Your task to perform on an android device: open app "YouTube Kids" (install if not already installed) Image 0: 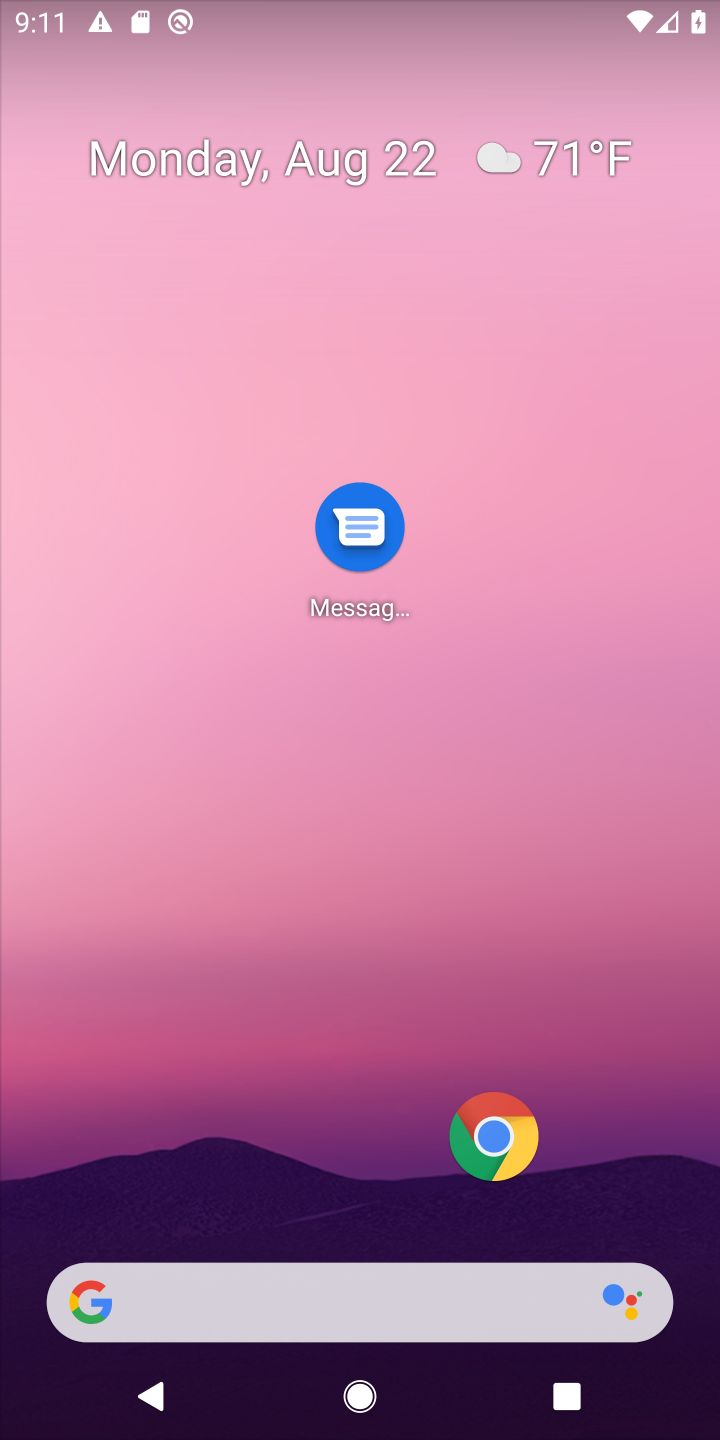
Step 0: drag from (229, 1177) to (238, 296)
Your task to perform on an android device: open app "YouTube Kids" (install if not already installed) Image 1: 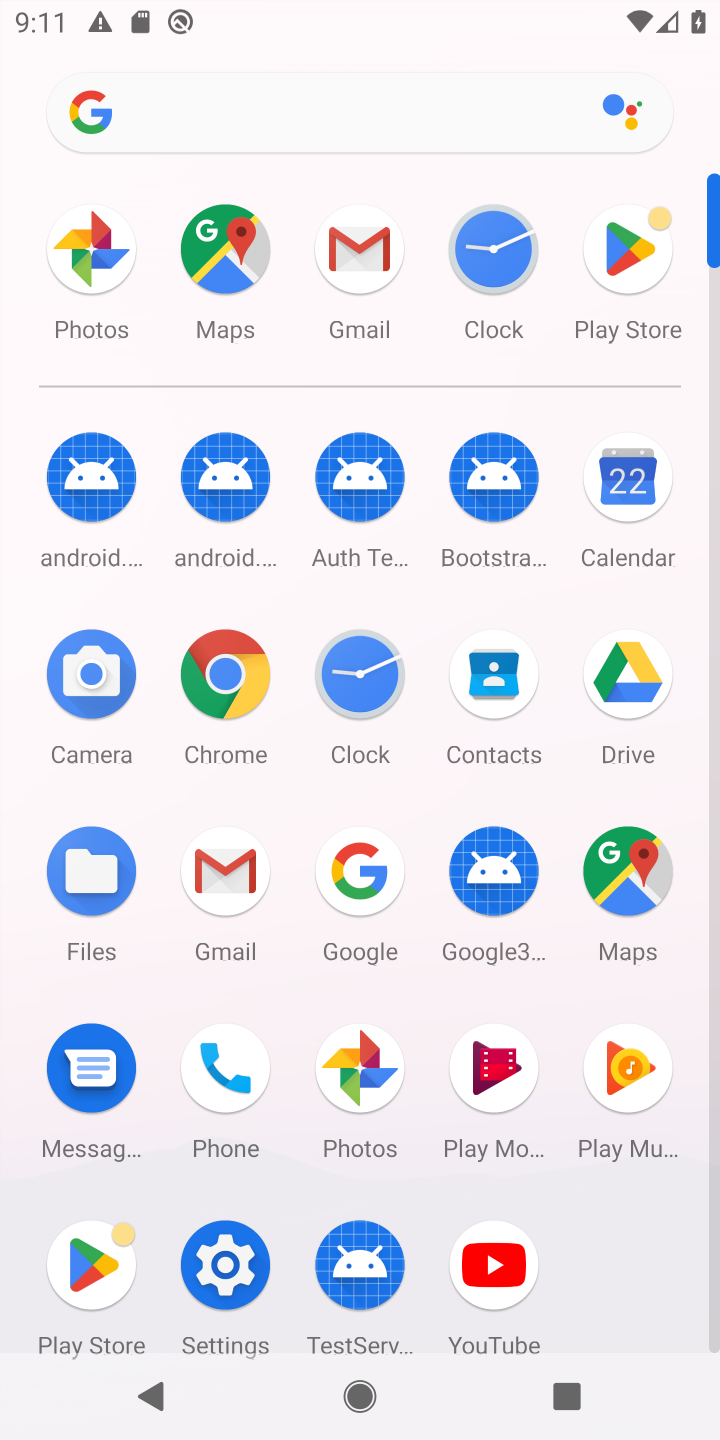
Step 1: click (625, 231)
Your task to perform on an android device: open app "YouTube Kids" (install if not already installed) Image 2: 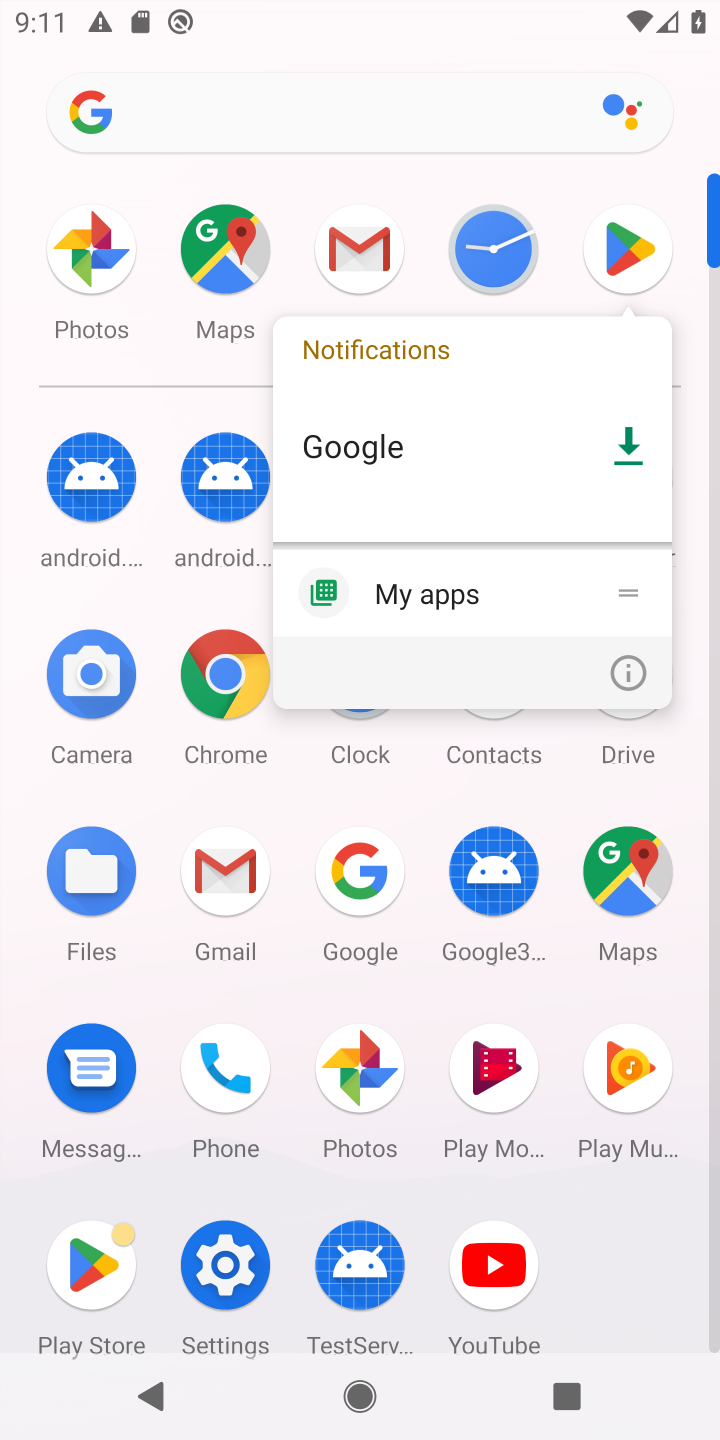
Step 2: click (622, 243)
Your task to perform on an android device: open app "YouTube Kids" (install if not already installed) Image 3: 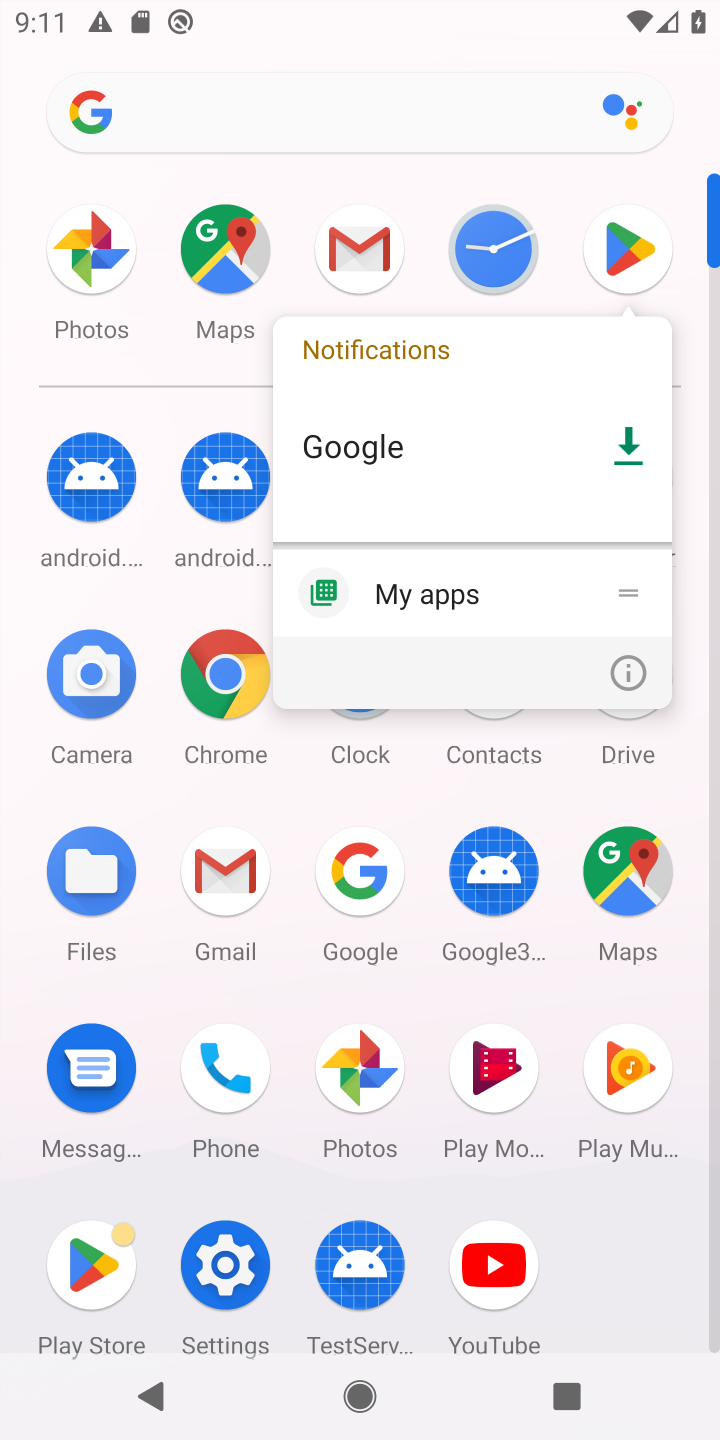
Step 3: click (622, 258)
Your task to perform on an android device: open app "YouTube Kids" (install if not already installed) Image 4: 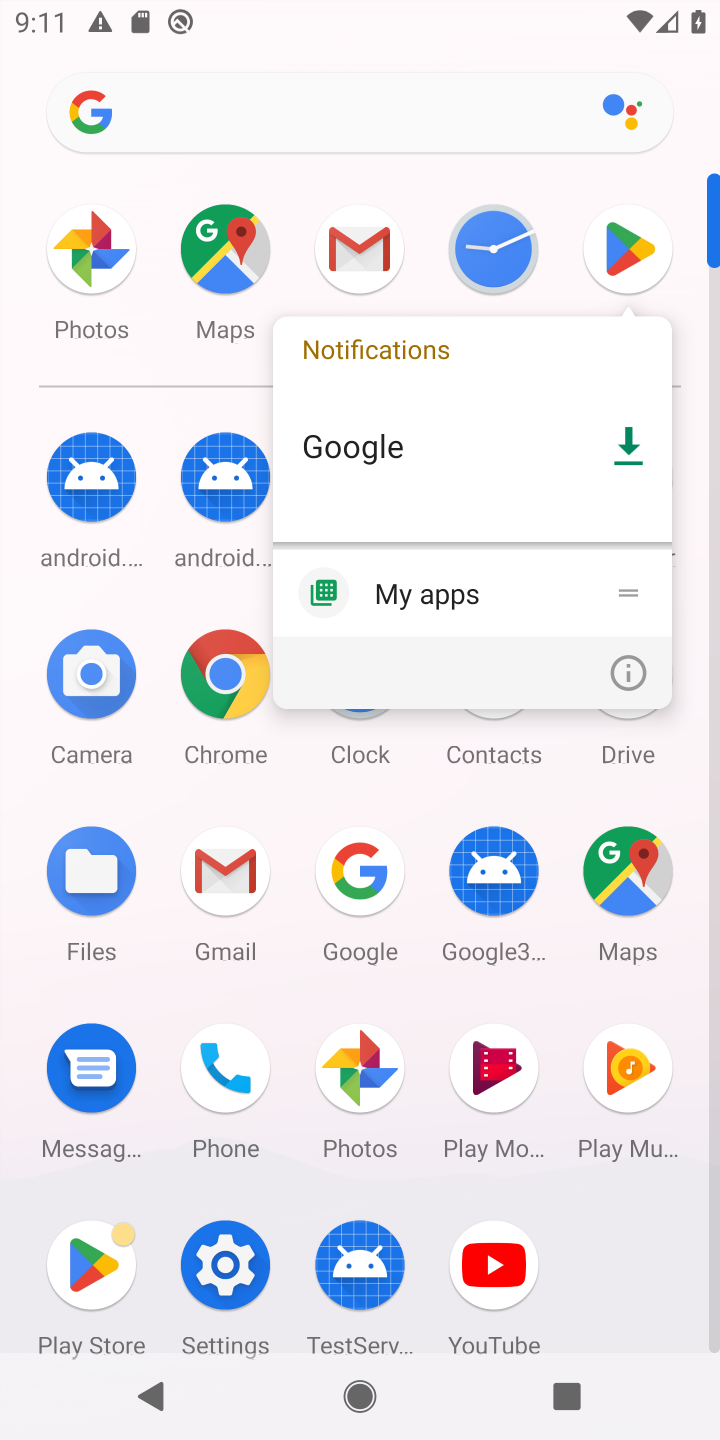
Step 4: click (622, 258)
Your task to perform on an android device: open app "YouTube Kids" (install if not already installed) Image 5: 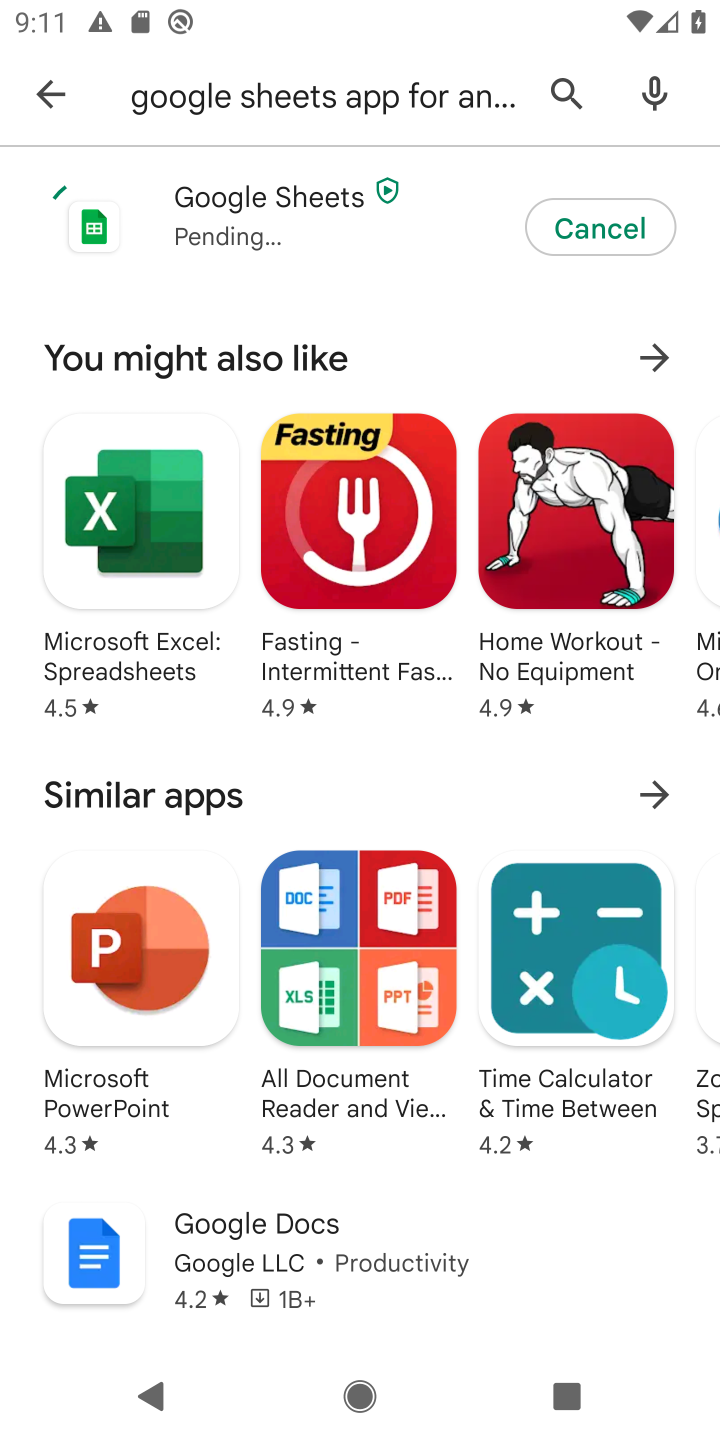
Step 5: click (35, 83)
Your task to perform on an android device: open app "YouTube Kids" (install if not already installed) Image 6: 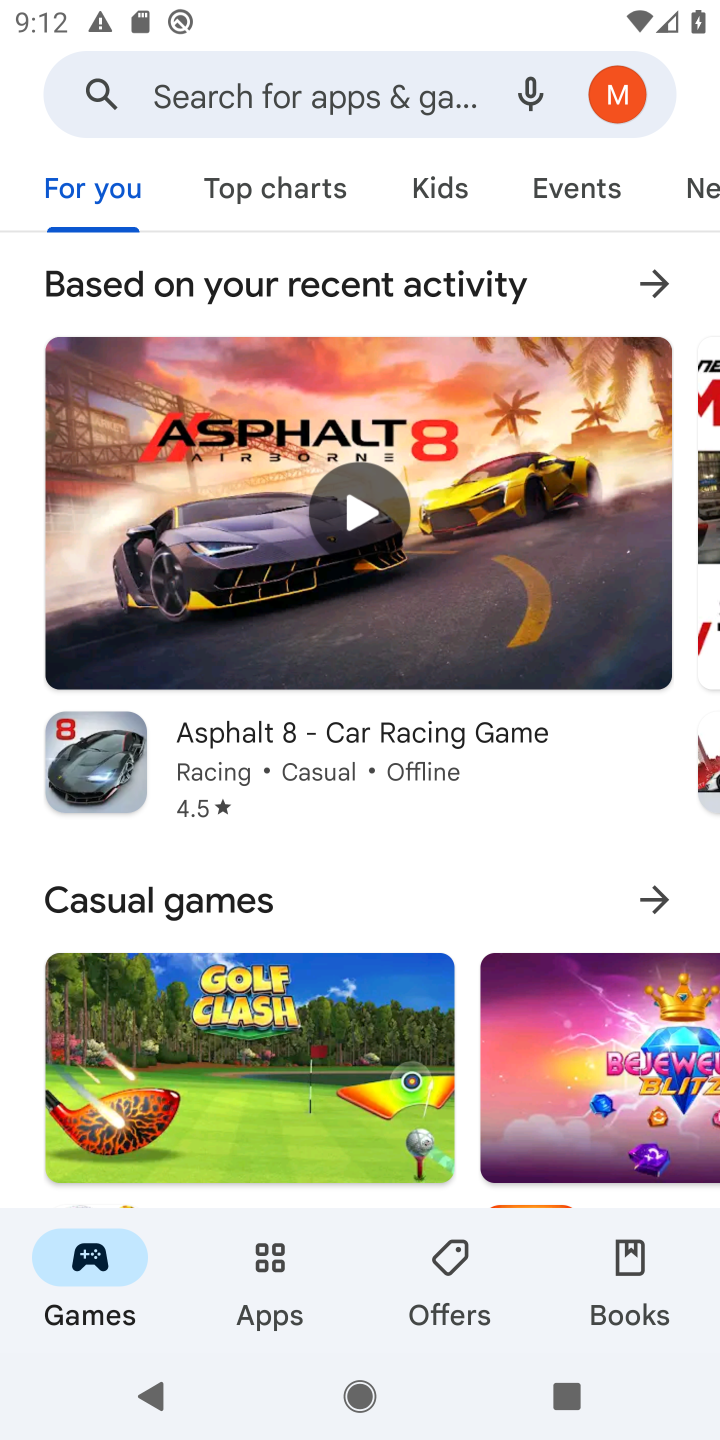
Step 6: click (422, 94)
Your task to perform on an android device: open app "YouTube Kids" (install if not already installed) Image 7: 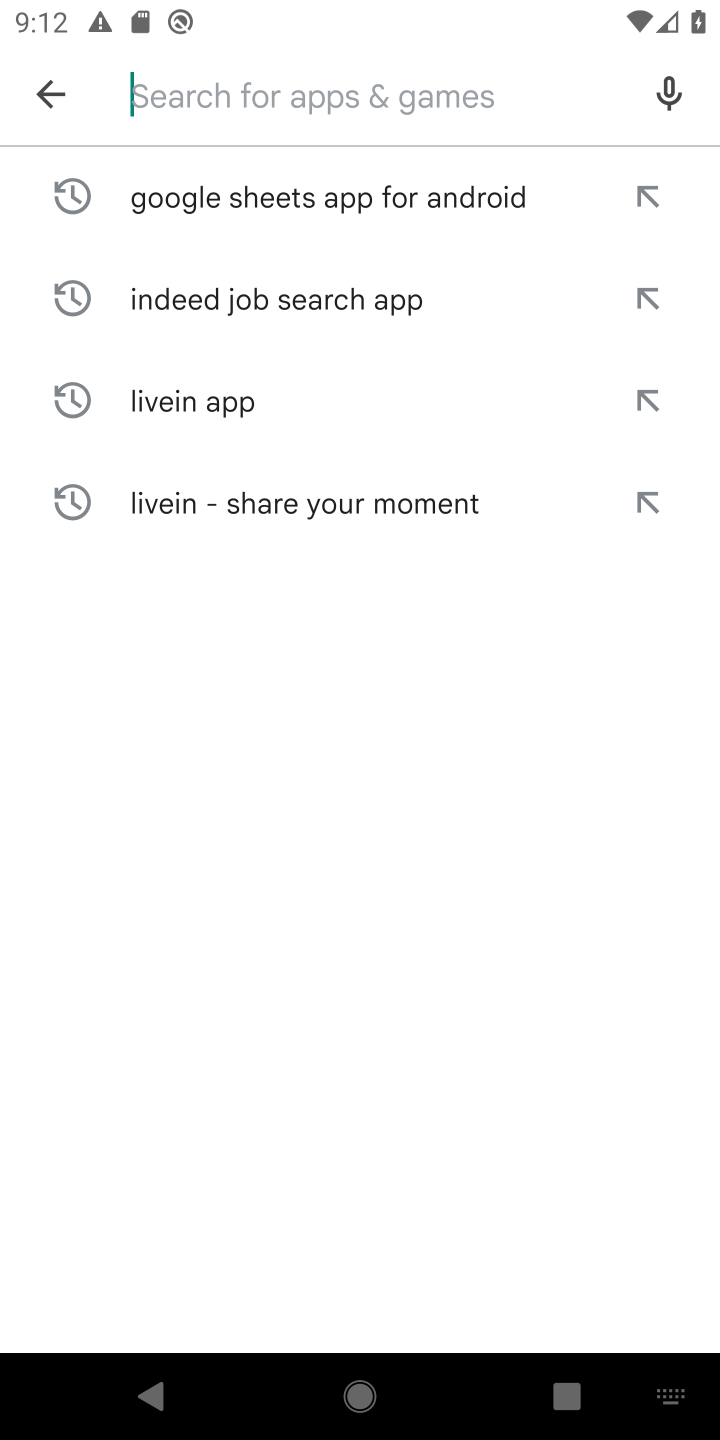
Step 7: type "YouTube Kids "
Your task to perform on an android device: open app "YouTube Kids" (install if not already installed) Image 8: 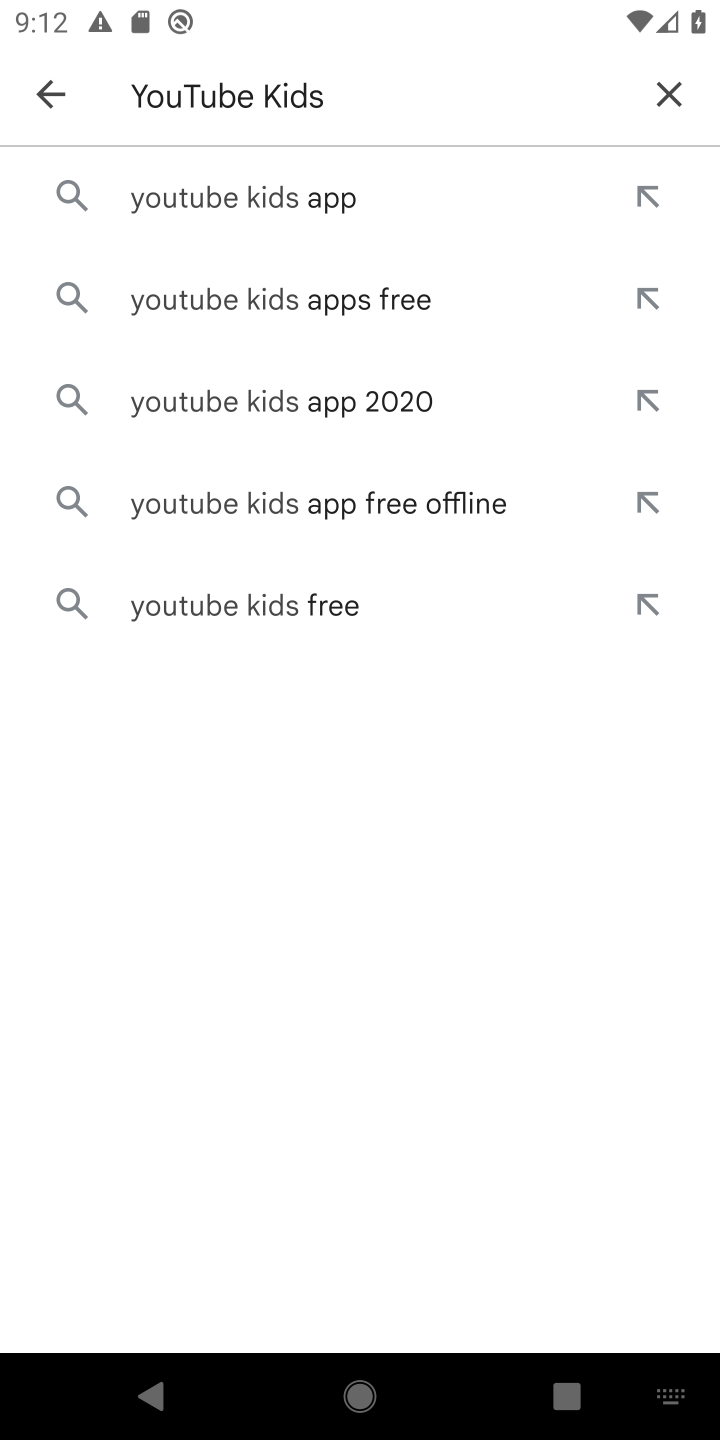
Step 8: click (256, 191)
Your task to perform on an android device: open app "YouTube Kids" (install if not already installed) Image 9: 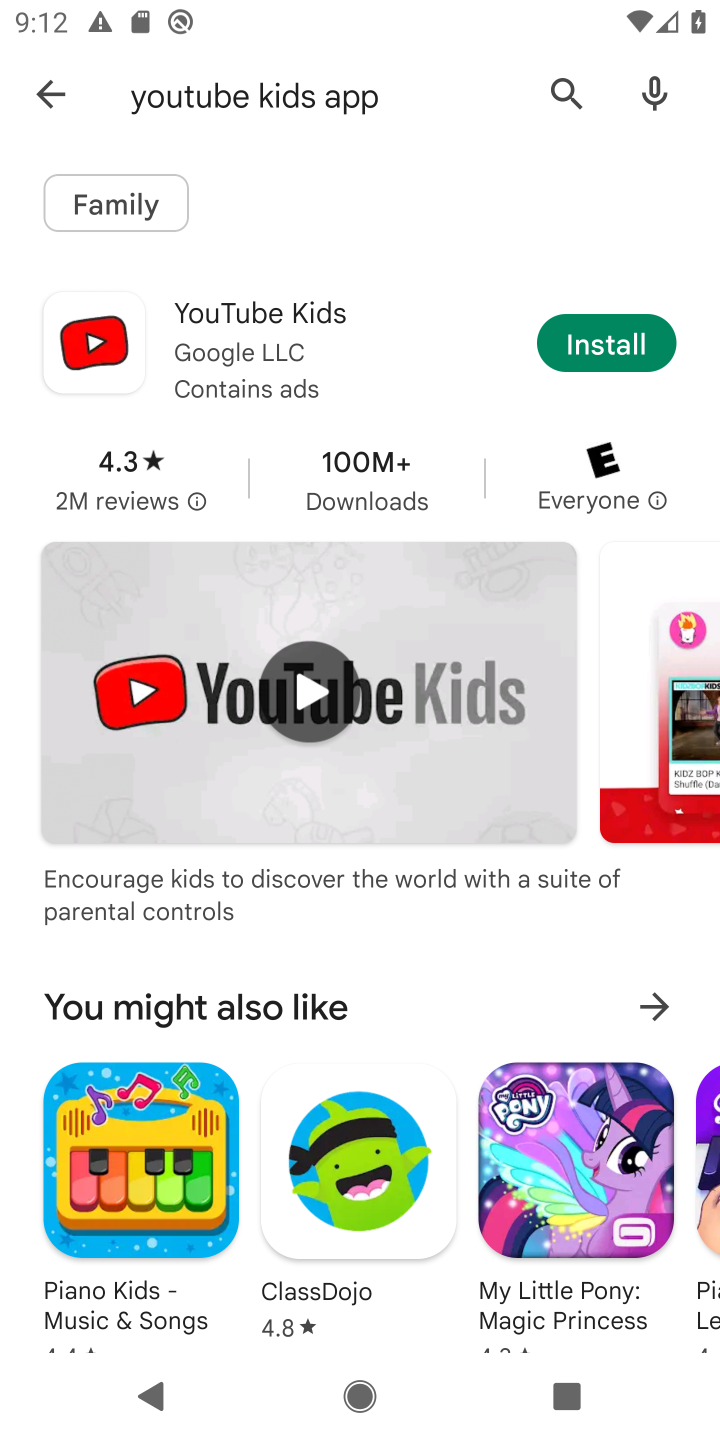
Step 9: click (623, 346)
Your task to perform on an android device: open app "YouTube Kids" (install if not already installed) Image 10: 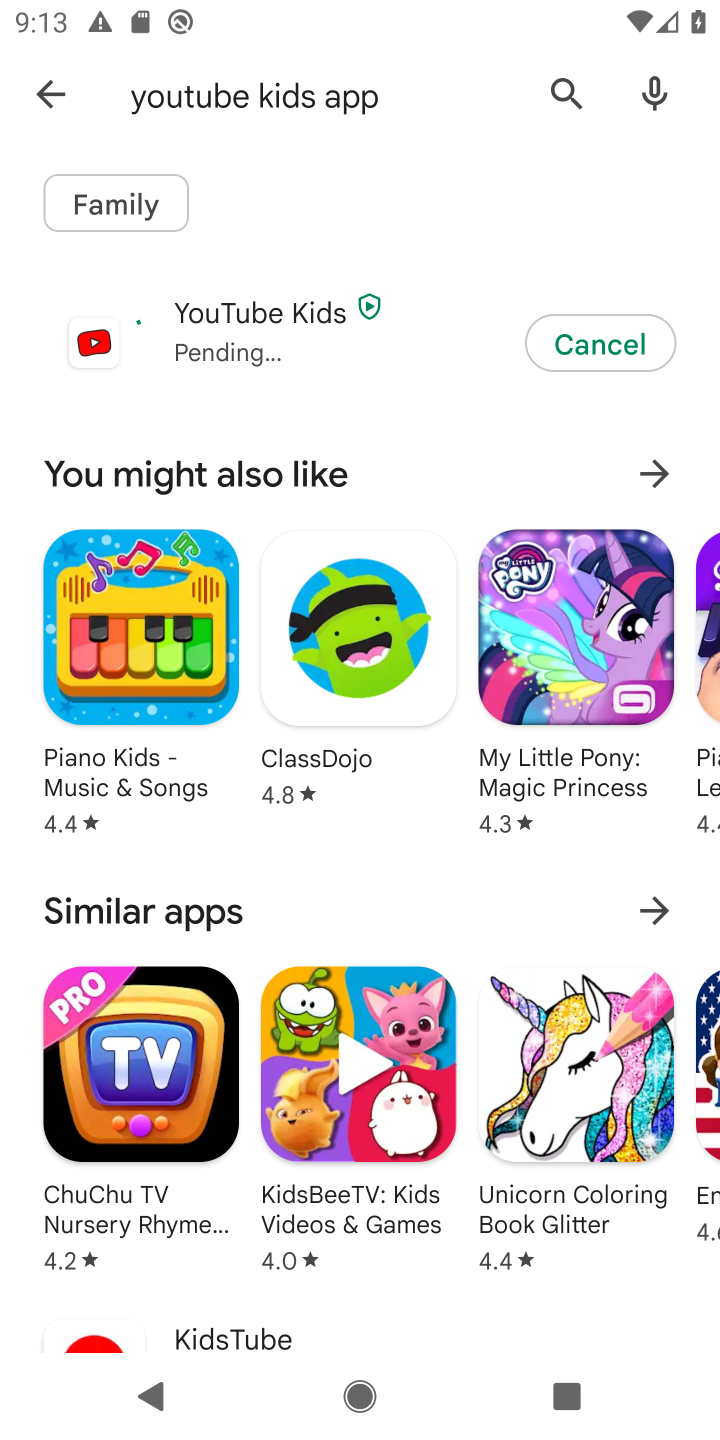
Step 10: task complete